Your task to perform on an android device: Open calendar and show me the second week of next month Image 0: 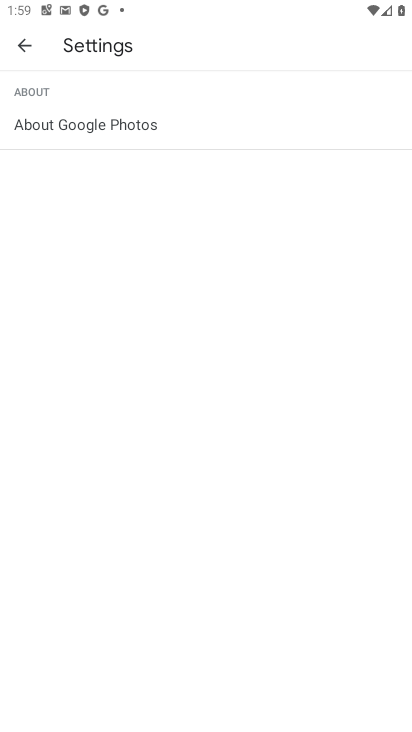
Step 0: press home button
Your task to perform on an android device: Open calendar and show me the second week of next month Image 1: 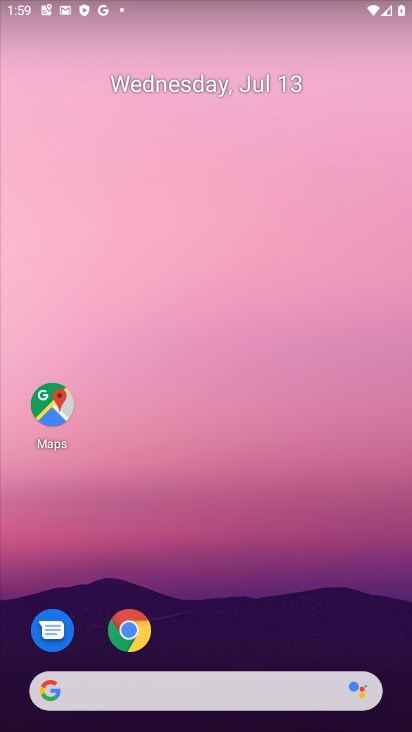
Step 1: drag from (231, 623) to (253, 83)
Your task to perform on an android device: Open calendar and show me the second week of next month Image 2: 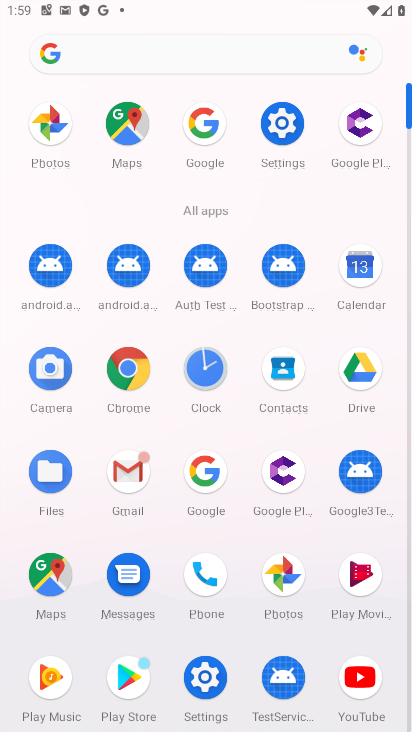
Step 2: click (359, 267)
Your task to perform on an android device: Open calendar and show me the second week of next month Image 3: 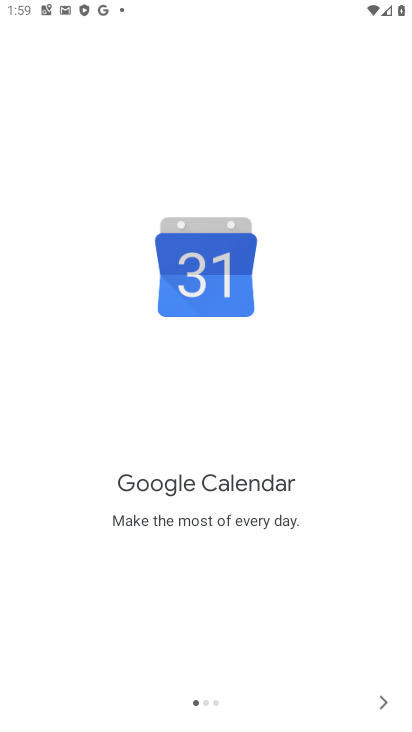
Step 3: click (380, 706)
Your task to perform on an android device: Open calendar and show me the second week of next month Image 4: 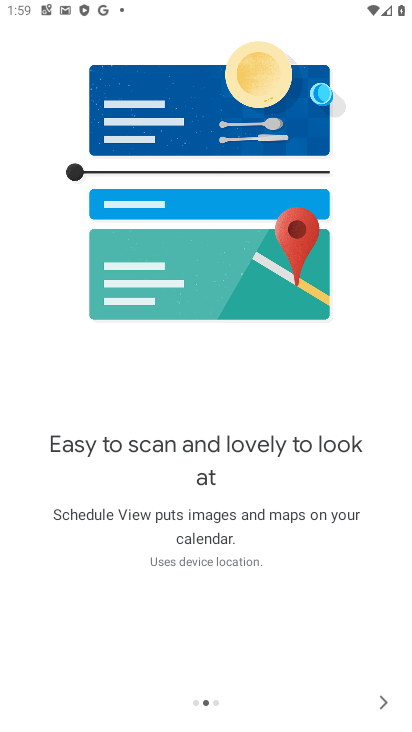
Step 4: click (382, 706)
Your task to perform on an android device: Open calendar and show me the second week of next month Image 5: 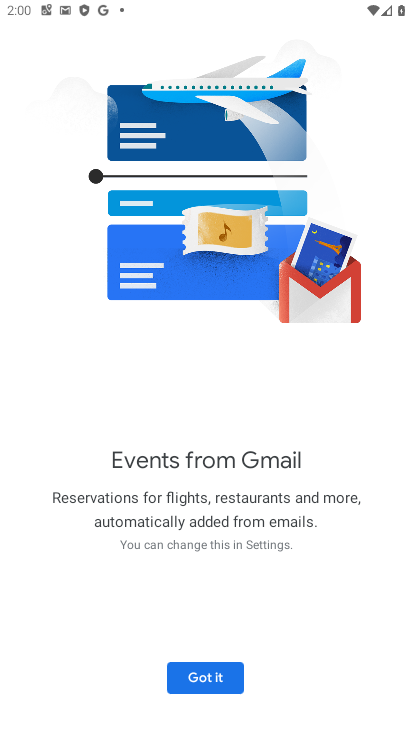
Step 5: click (219, 674)
Your task to perform on an android device: Open calendar and show me the second week of next month Image 6: 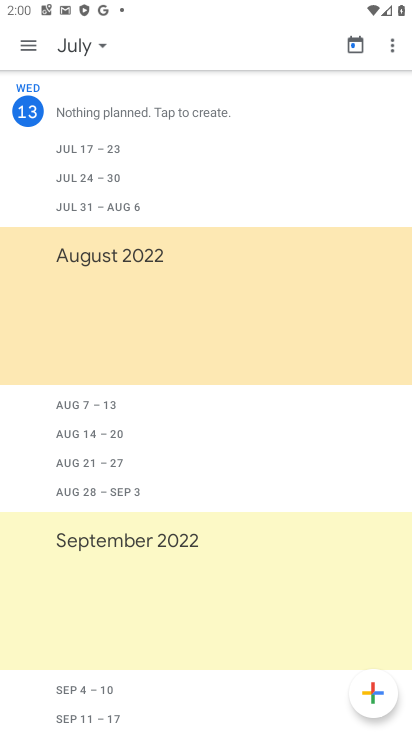
Step 6: click (99, 40)
Your task to perform on an android device: Open calendar and show me the second week of next month Image 7: 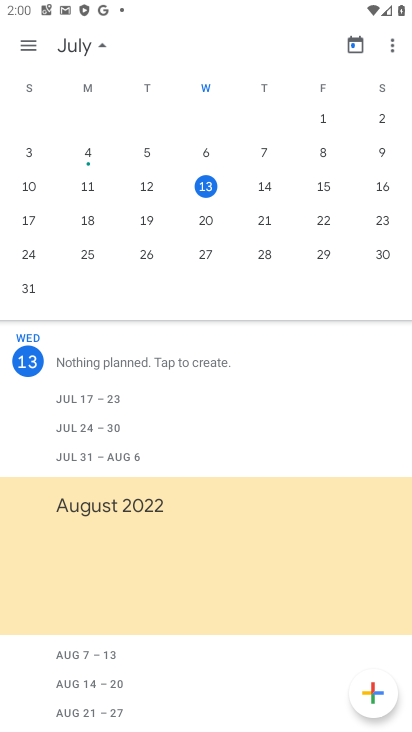
Step 7: drag from (387, 301) to (0, 267)
Your task to perform on an android device: Open calendar and show me the second week of next month Image 8: 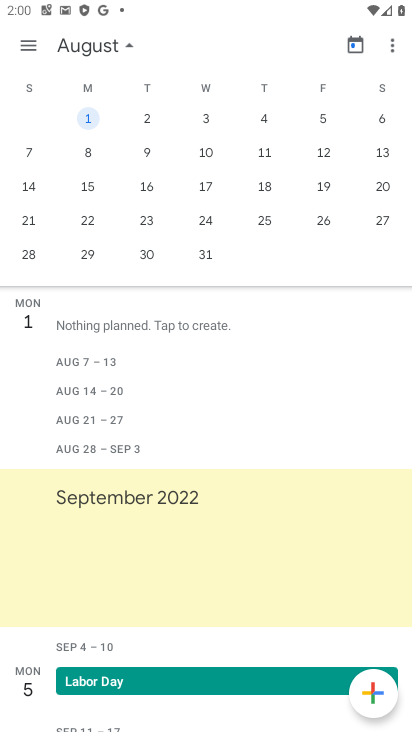
Step 8: click (88, 184)
Your task to perform on an android device: Open calendar and show me the second week of next month Image 9: 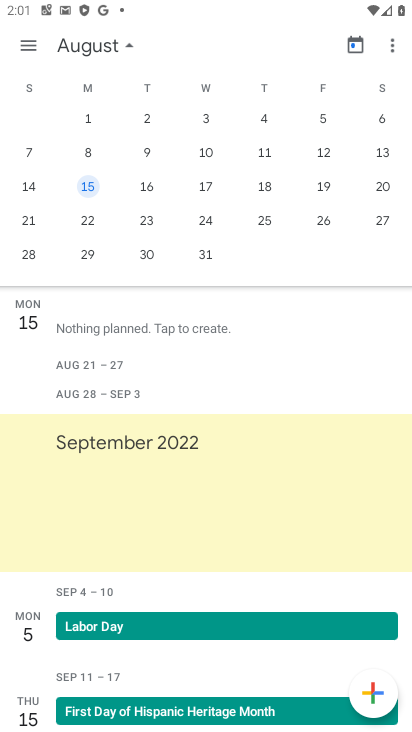
Step 9: task complete